Your task to perform on an android device: remove spam from my inbox in the gmail app Image 0: 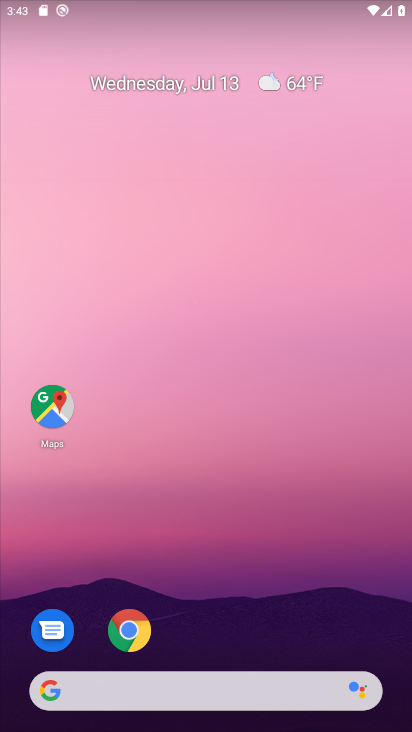
Step 0: drag from (184, 646) to (149, 60)
Your task to perform on an android device: remove spam from my inbox in the gmail app Image 1: 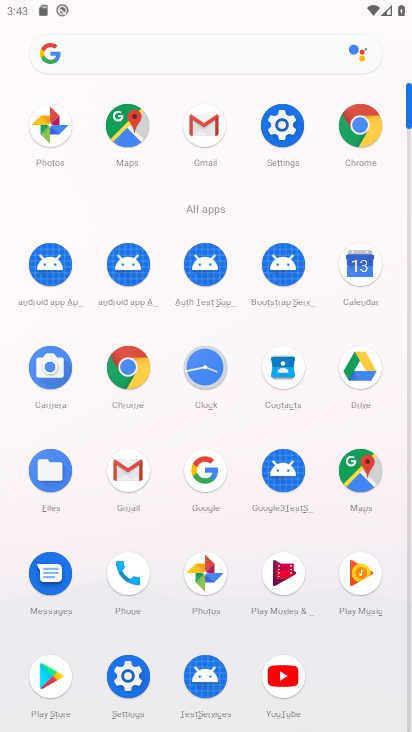
Step 1: click (206, 131)
Your task to perform on an android device: remove spam from my inbox in the gmail app Image 2: 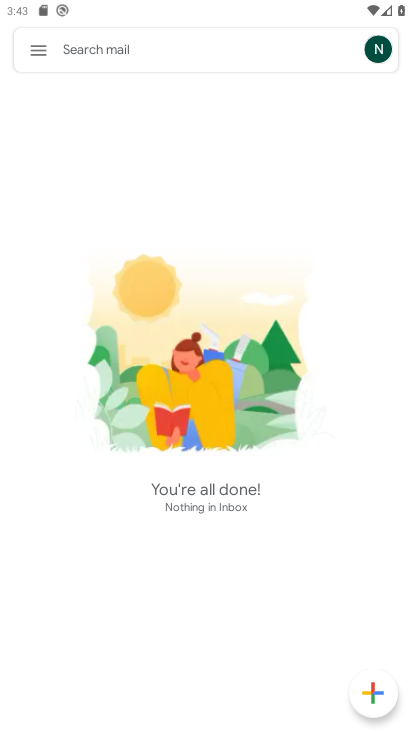
Step 2: click (41, 51)
Your task to perform on an android device: remove spam from my inbox in the gmail app Image 3: 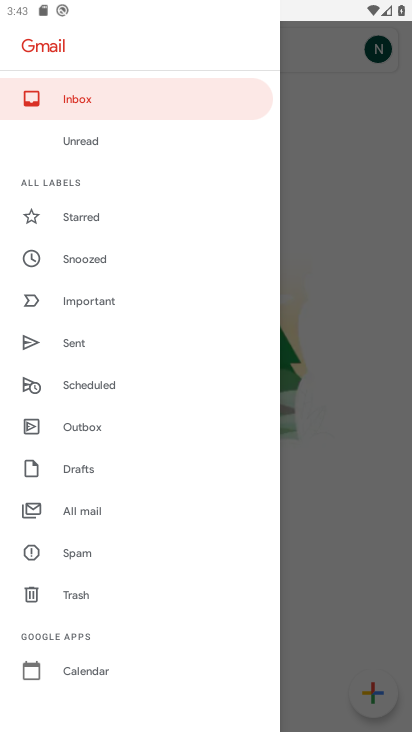
Step 3: click (74, 553)
Your task to perform on an android device: remove spam from my inbox in the gmail app Image 4: 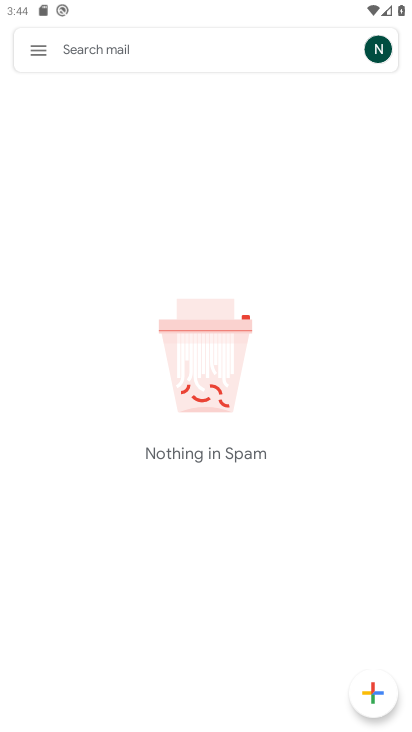
Step 4: task complete